Your task to perform on an android device: Open privacy settings Image 0: 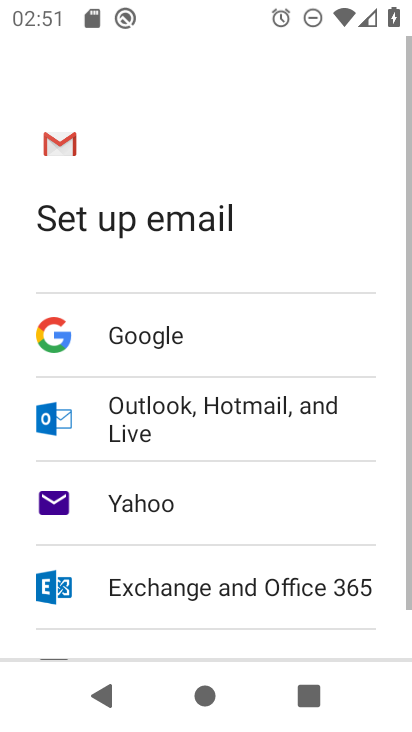
Step 0: press home button
Your task to perform on an android device: Open privacy settings Image 1: 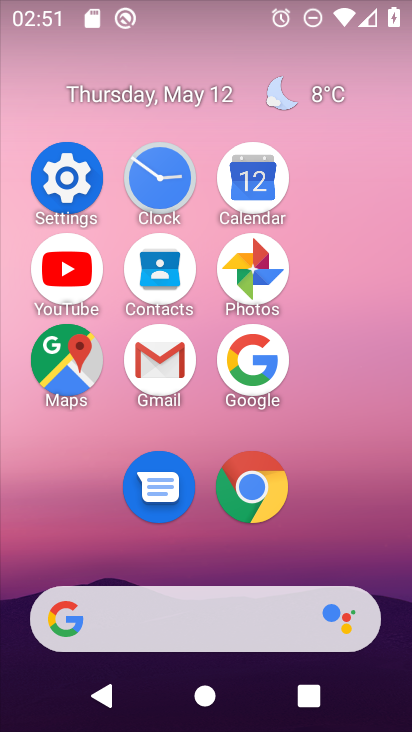
Step 1: click (77, 183)
Your task to perform on an android device: Open privacy settings Image 2: 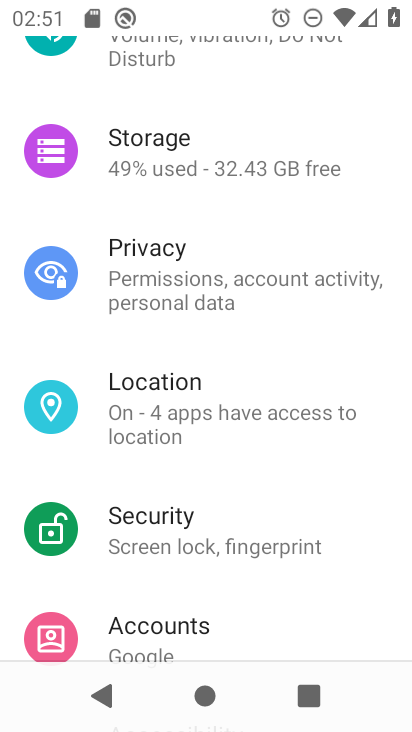
Step 2: click (216, 293)
Your task to perform on an android device: Open privacy settings Image 3: 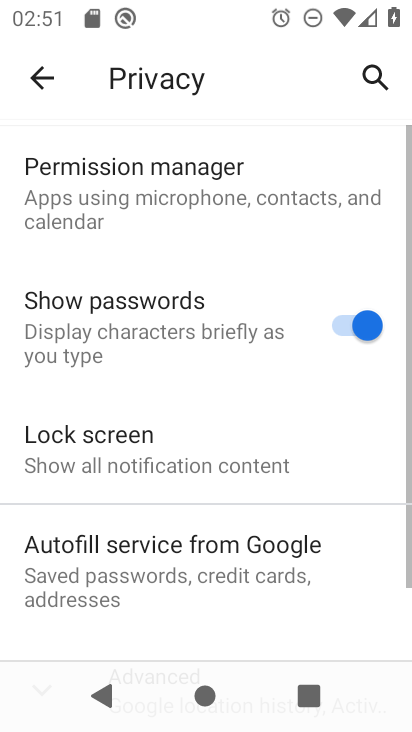
Step 3: task complete